Your task to perform on an android device: change your default location settings in chrome Image 0: 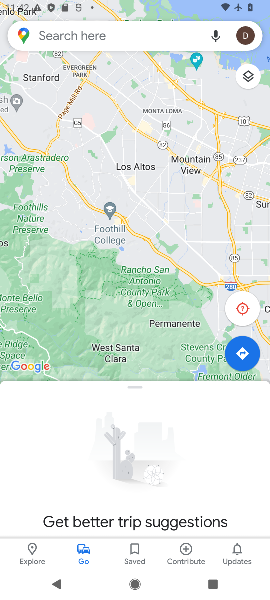
Step 0: press home button
Your task to perform on an android device: change your default location settings in chrome Image 1: 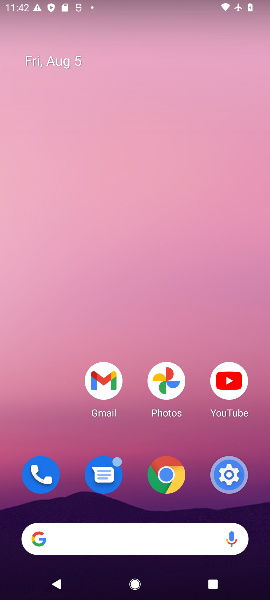
Step 1: click (170, 475)
Your task to perform on an android device: change your default location settings in chrome Image 2: 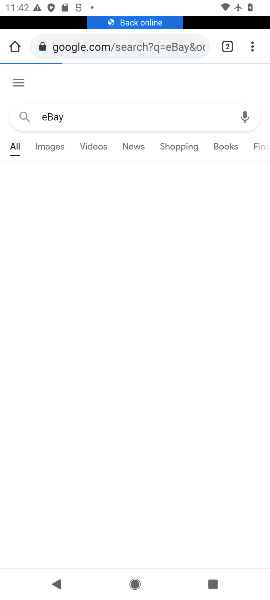
Step 2: click (250, 41)
Your task to perform on an android device: change your default location settings in chrome Image 3: 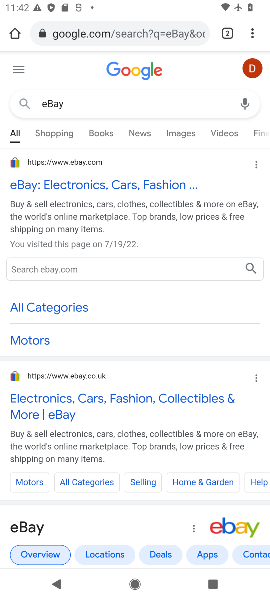
Step 3: click (250, 33)
Your task to perform on an android device: change your default location settings in chrome Image 4: 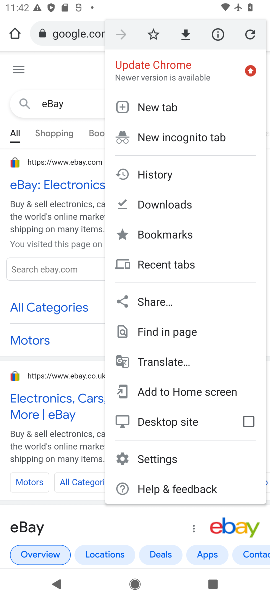
Step 4: click (162, 454)
Your task to perform on an android device: change your default location settings in chrome Image 5: 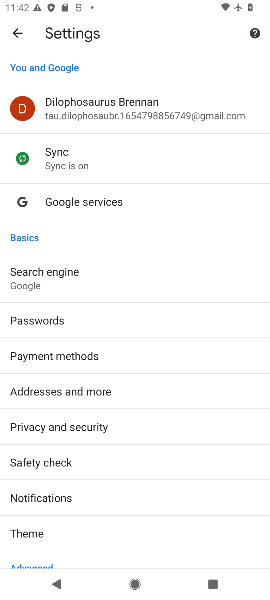
Step 5: drag from (91, 455) to (128, 334)
Your task to perform on an android device: change your default location settings in chrome Image 6: 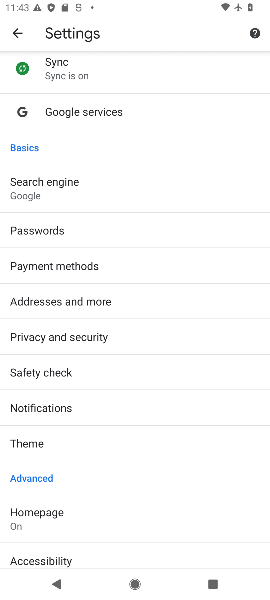
Step 6: drag from (66, 483) to (75, 426)
Your task to perform on an android device: change your default location settings in chrome Image 7: 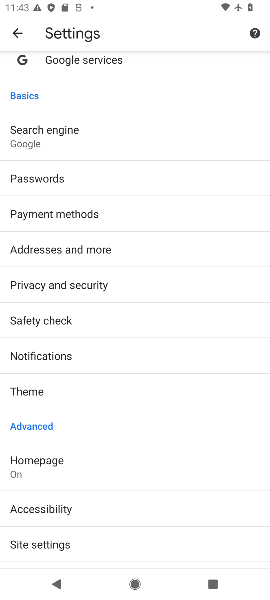
Step 7: click (56, 544)
Your task to perform on an android device: change your default location settings in chrome Image 8: 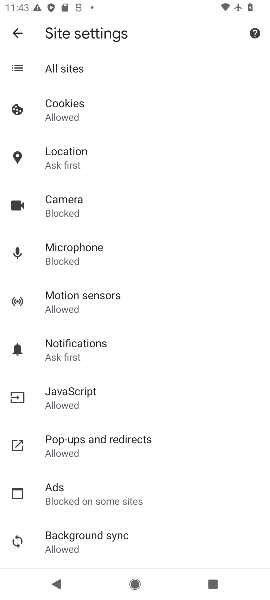
Step 8: click (74, 156)
Your task to perform on an android device: change your default location settings in chrome Image 9: 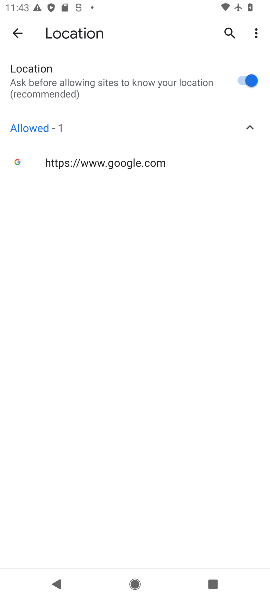
Step 9: click (232, 79)
Your task to perform on an android device: change your default location settings in chrome Image 10: 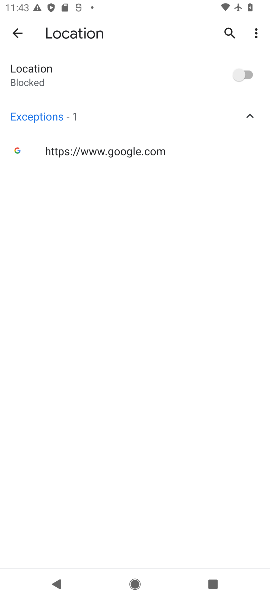
Step 10: task complete